Your task to perform on an android device: create a new album in the google photos Image 0: 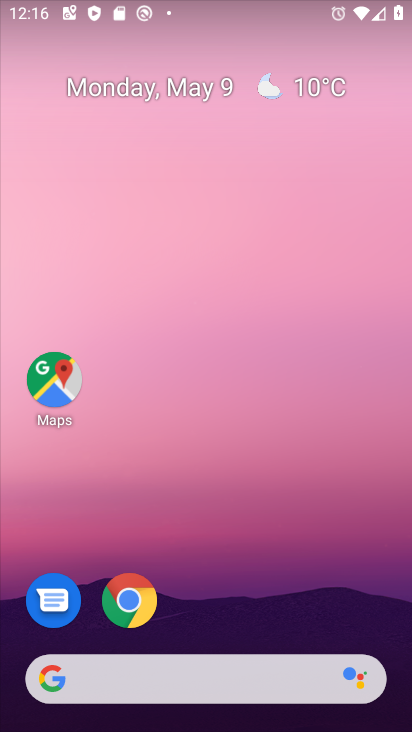
Step 0: drag from (231, 617) to (315, 271)
Your task to perform on an android device: create a new album in the google photos Image 1: 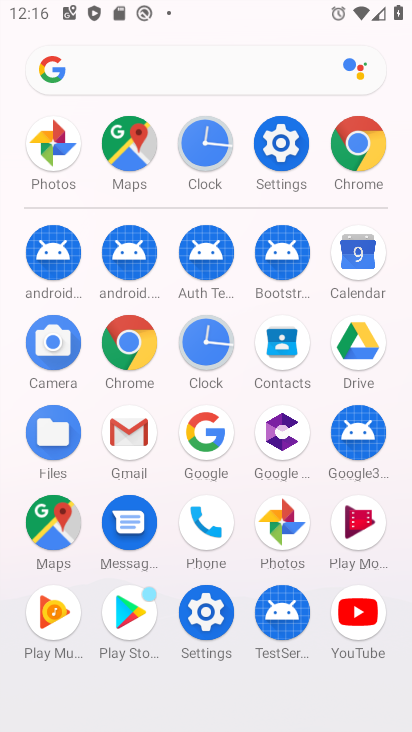
Step 1: click (58, 156)
Your task to perform on an android device: create a new album in the google photos Image 2: 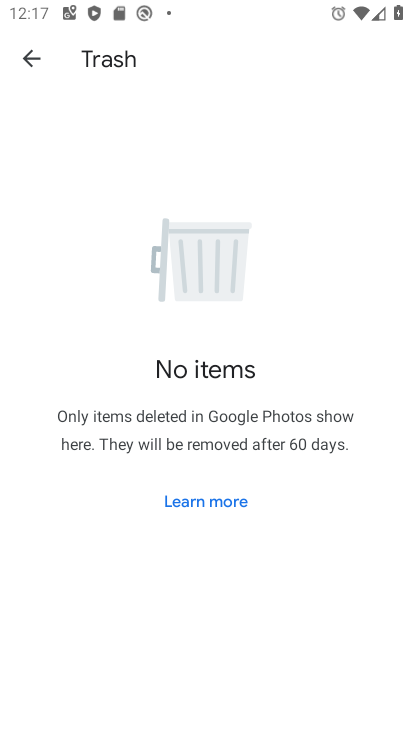
Step 2: click (32, 55)
Your task to perform on an android device: create a new album in the google photos Image 3: 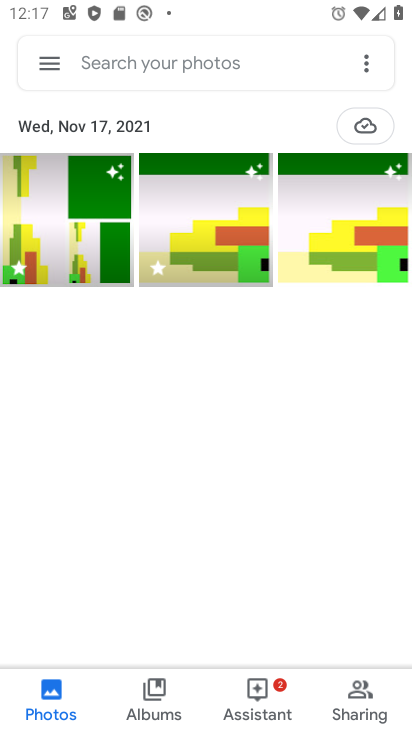
Step 3: click (366, 58)
Your task to perform on an android device: create a new album in the google photos Image 4: 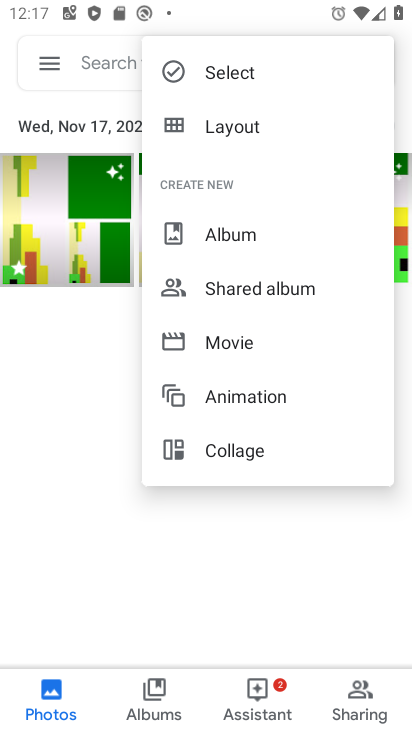
Step 4: click (243, 222)
Your task to perform on an android device: create a new album in the google photos Image 5: 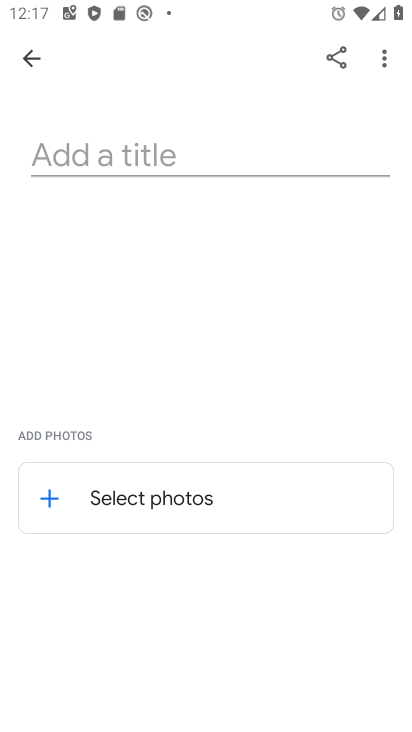
Step 5: click (125, 150)
Your task to perform on an android device: create a new album in the google photos Image 6: 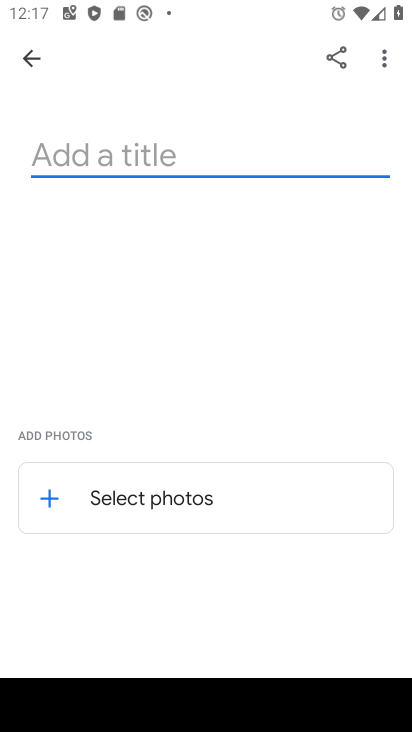
Step 6: type "rrr"
Your task to perform on an android device: create a new album in the google photos Image 7: 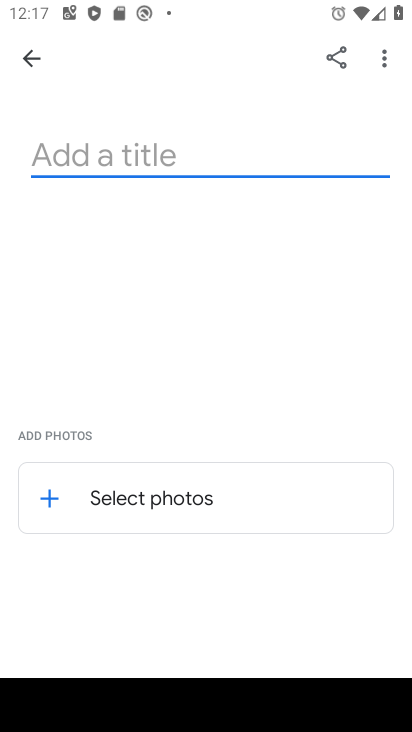
Step 7: click (98, 509)
Your task to perform on an android device: create a new album in the google photos Image 8: 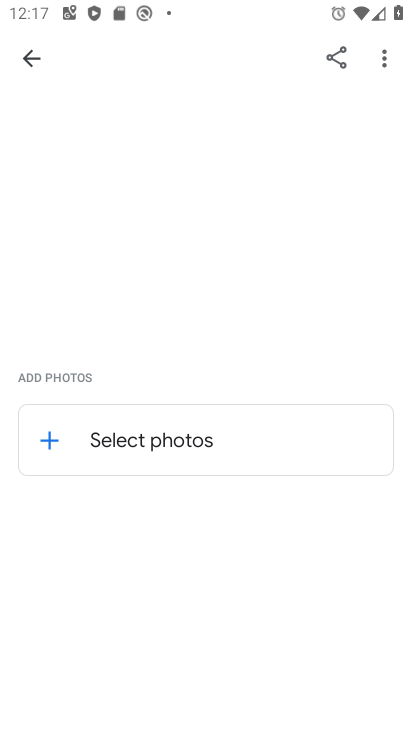
Step 8: click (33, 434)
Your task to perform on an android device: create a new album in the google photos Image 9: 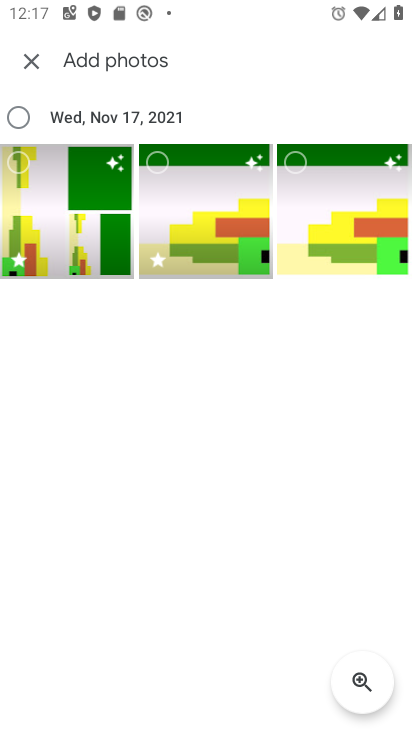
Step 9: click (24, 186)
Your task to perform on an android device: create a new album in the google photos Image 10: 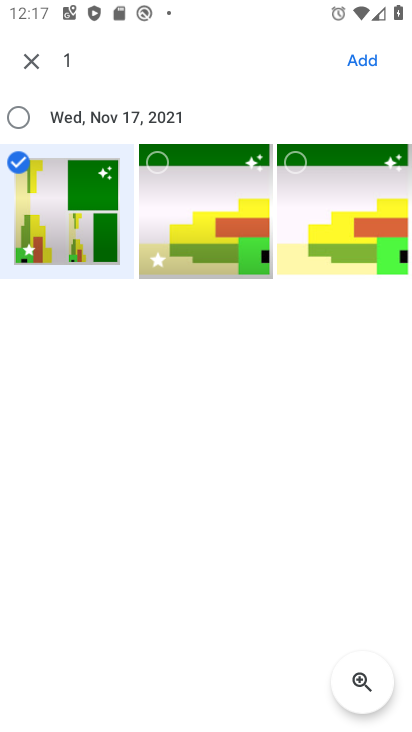
Step 10: click (374, 62)
Your task to perform on an android device: create a new album in the google photos Image 11: 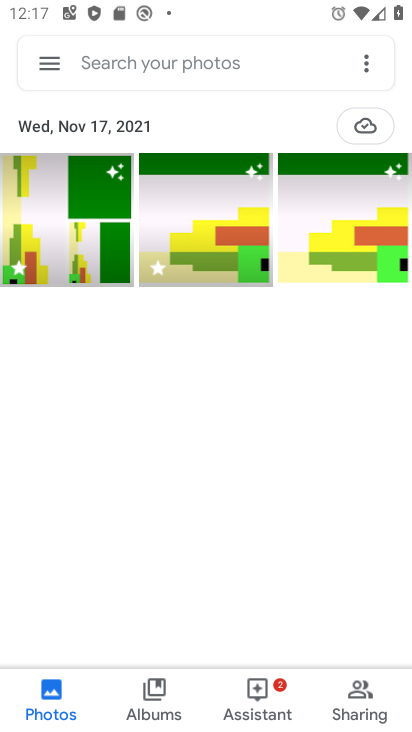
Step 11: click (138, 693)
Your task to perform on an android device: create a new album in the google photos Image 12: 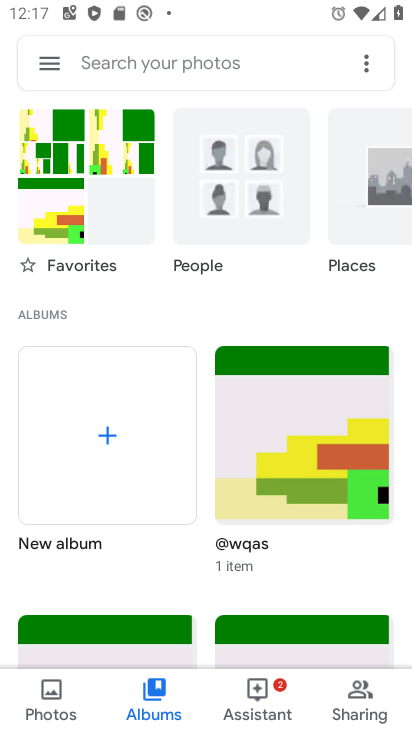
Step 12: task complete